Your task to perform on an android device: Is it going to rain this weekend? Image 0: 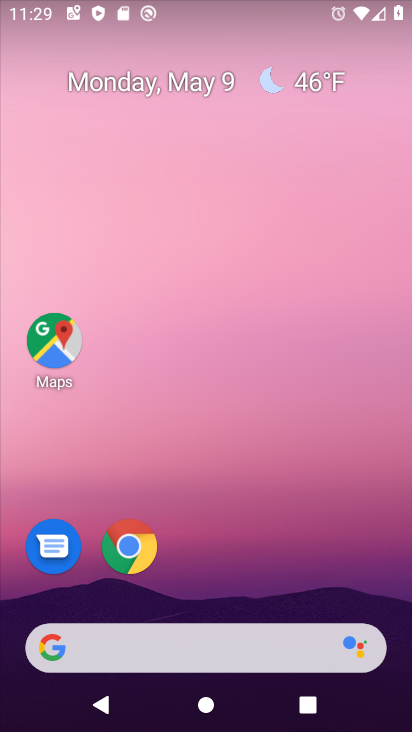
Step 0: click (316, 90)
Your task to perform on an android device: Is it going to rain this weekend? Image 1: 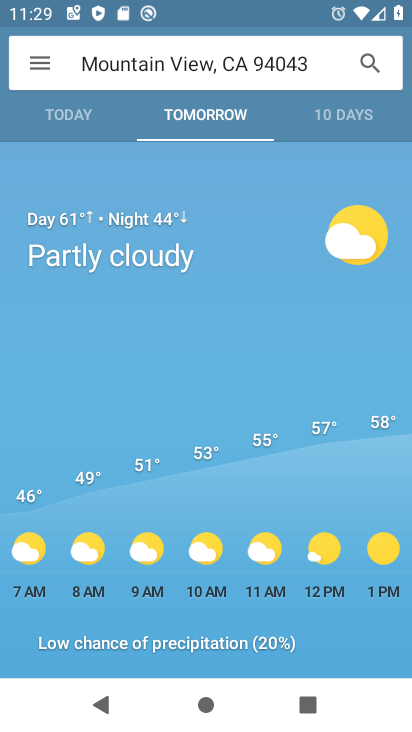
Step 1: click (330, 115)
Your task to perform on an android device: Is it going to rain this weekend? Image 2: 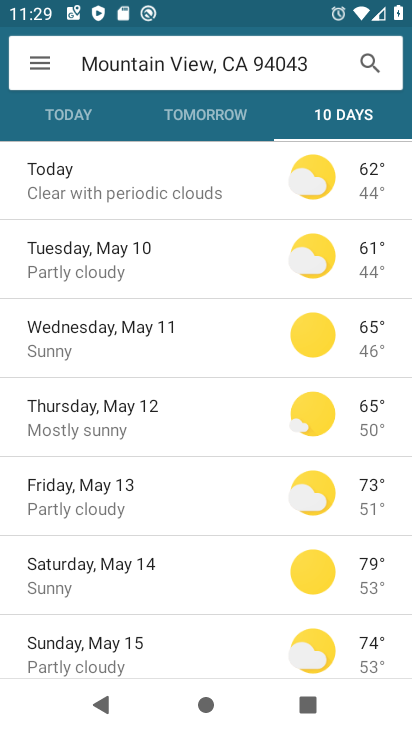
Step 2: task complete